Your task to perform on an android device: turn on the 12-hour format for clock Image 0: 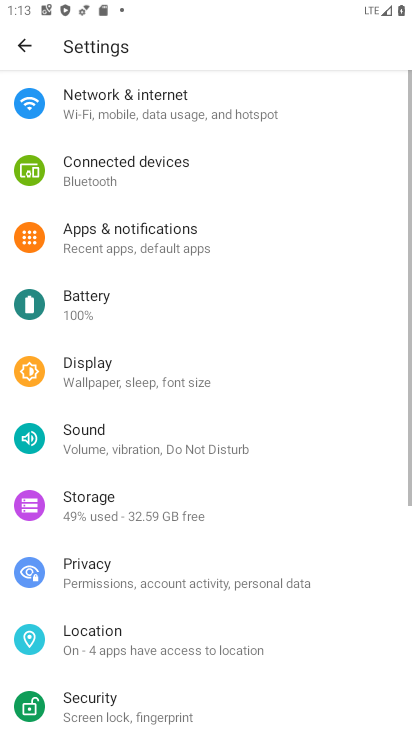
Step 0: press home button
Your task to perform on an android device: turn on the 12-hour format for clock Image 1: 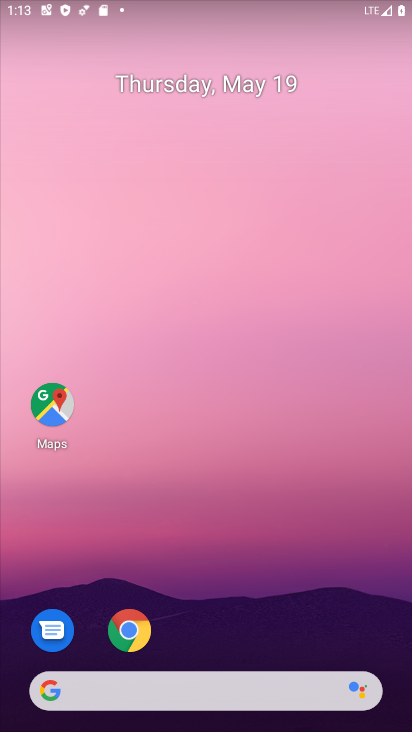
Step 1: drag from (210, 653) to (63, 1)
Your task to perform on an android device: turn on the 12-hour format for clock Image 2: 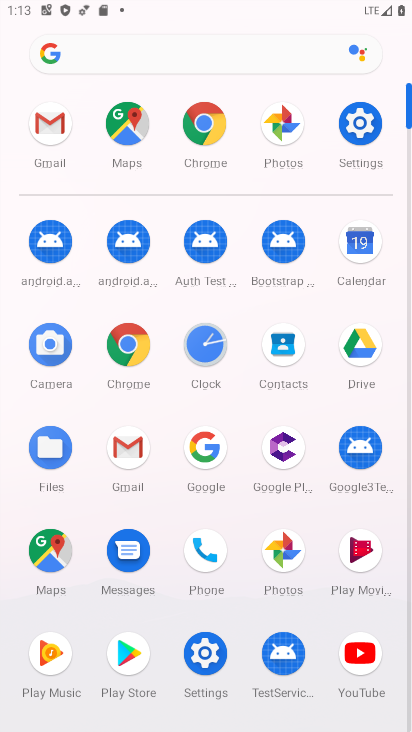
Step 2: click (207, 353)
Your task to perform on an android device: turn on the 12-hour format for clock Image 3: 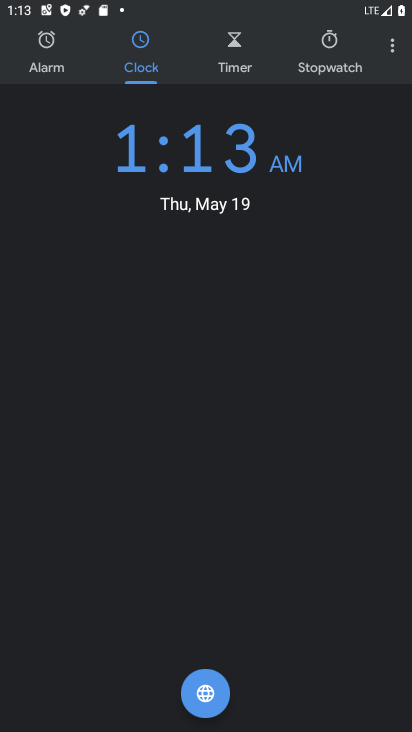
Step 3: click (393, 31)
Your task to perform on an android device: turn on the 12-hour format for clock Image 4: 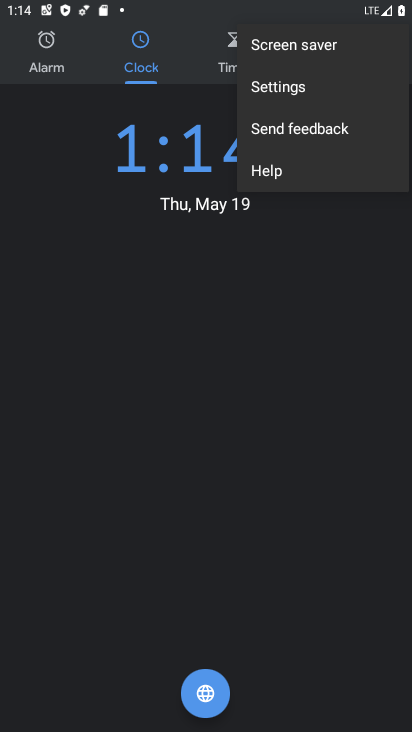
Step 4: click (286, 88)
Your task to perform on an android device: turn on the 12-hour format for clock Image 5: 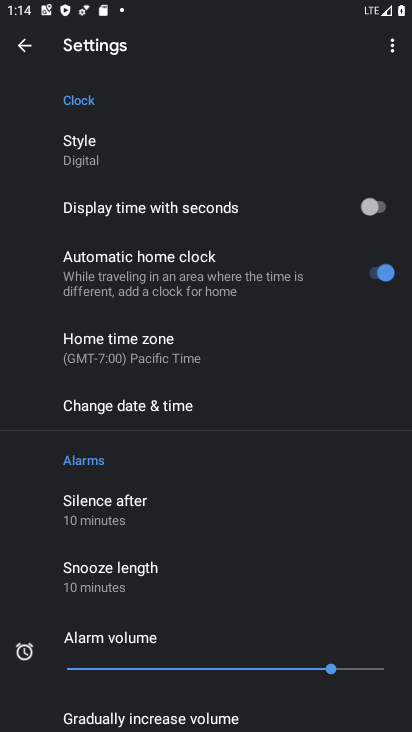
Step 5: drag from (150, 590) to (110, 408)
Your task to perform on an android device: turn on the 12-hour format for clock Image 6: 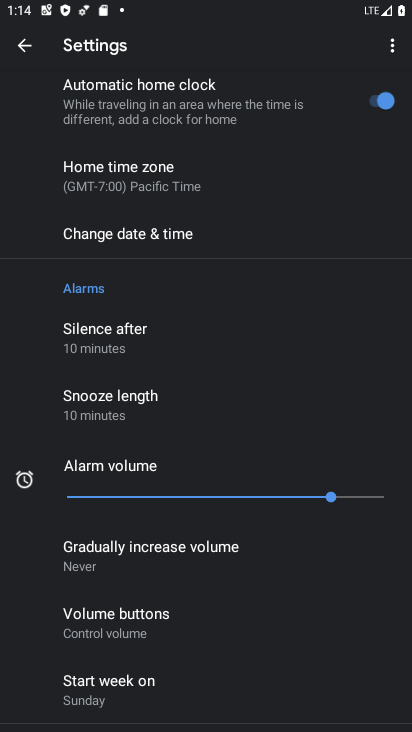
Step 6: click (140, 245)
Your task to perform on an android device: turn on the 12-hour format for clock Image 7: 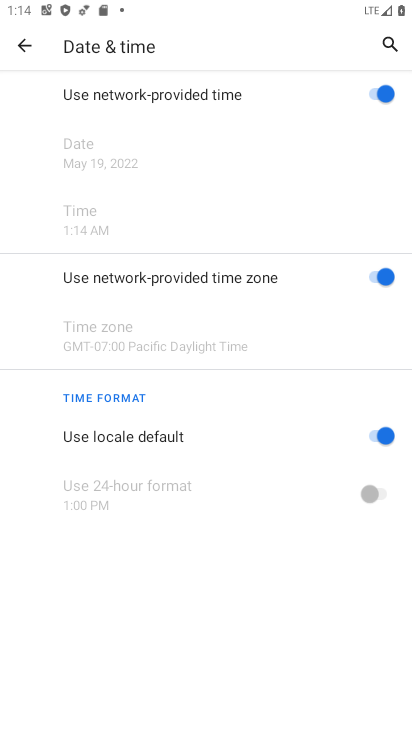
Step 7: task complete